Your task to perform on an android device: change keyboard looks Image 0: 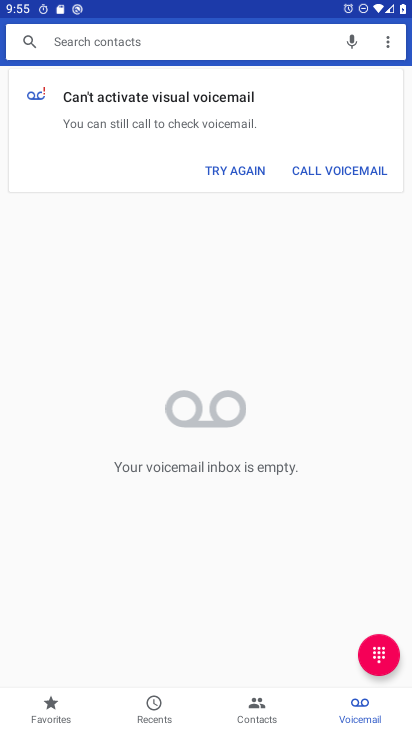
Step 0: press home button
Your task to perform on an android device: change keyboard looks Image 1: 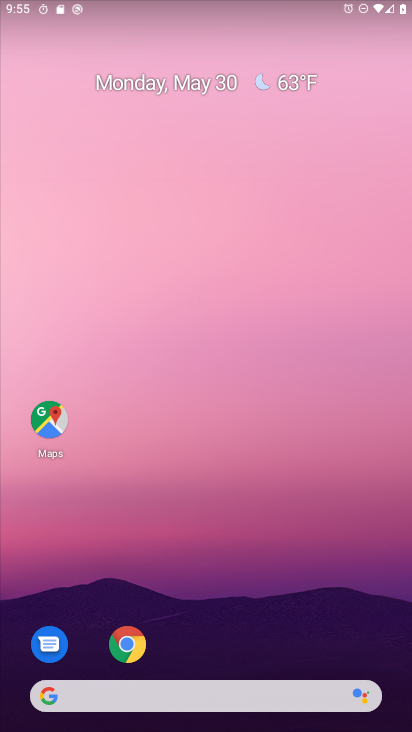
Step 1: drag from (218, 597) to (194, 56)
Your task to perform on an android device: change keyboard looks Image 2: 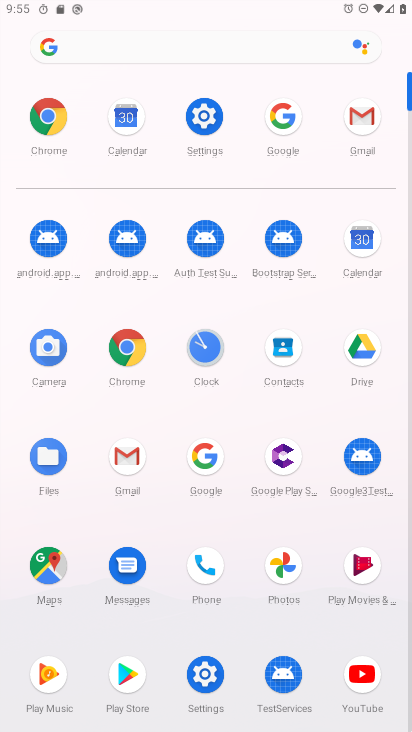
Step 2: click (211, 120)
Your task to perform on an android device: change keyboard looks Image 3: 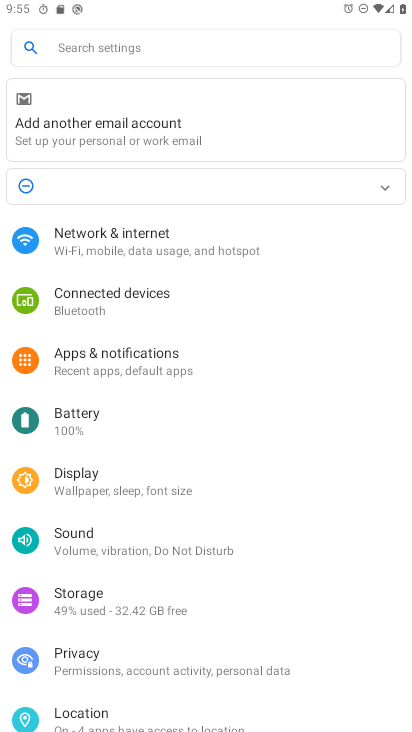
Step 3: drag from (216, 614) to (176, 135)
Your task to perform on an android device: change keyboard looks Image 4: 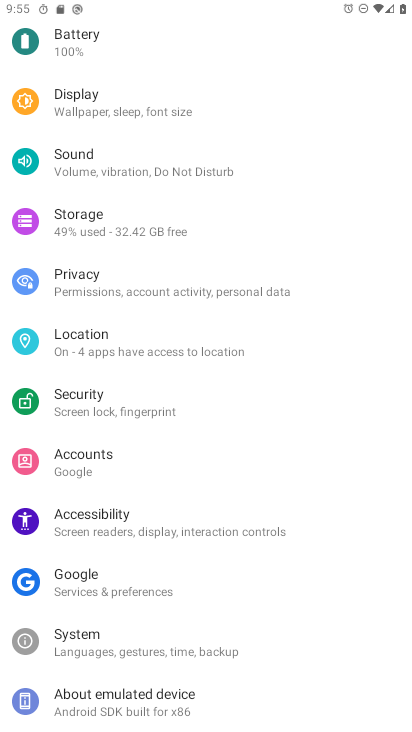
Step 4: click (67, 642)
Your task to perform on an android device: change keyboard looks Image 5: 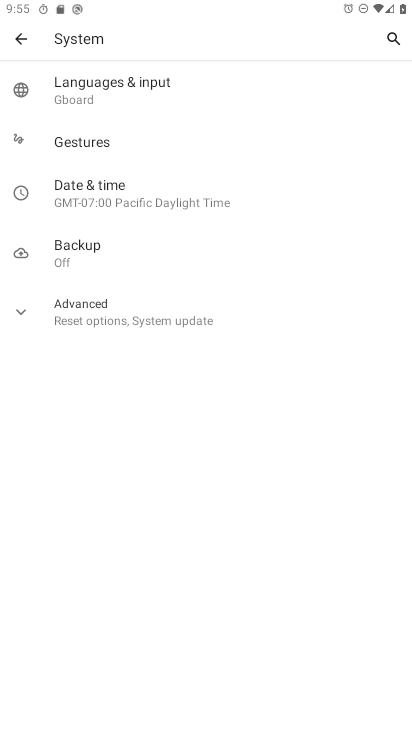
Step 5: click (119, 89)
Your task to perform on an android device: change keyboard looks Image 6: 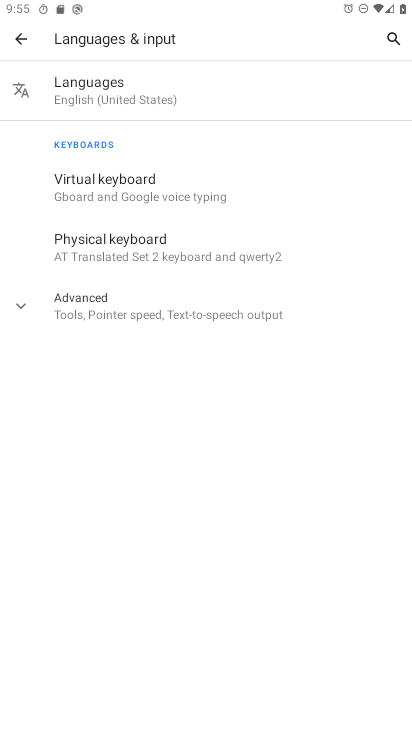
Step 6: click (101, 191)
Your task to perform on an android device: change keyboard looks Image 7: 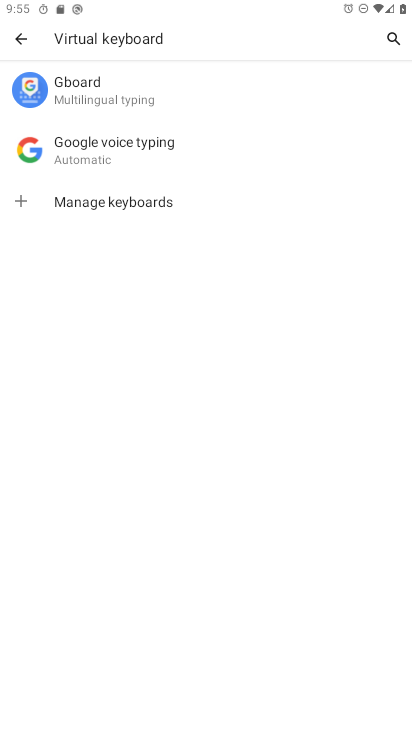
Step 7: click (117, 93)
Your task to perform on an android device: change keyboard looks Image 8: 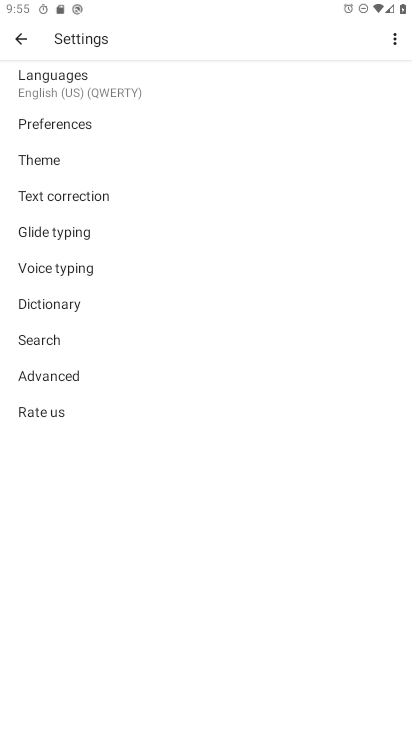
Step 8: click (60, 159)
Your task to perform on an android device: change keyboard looks Image 9: 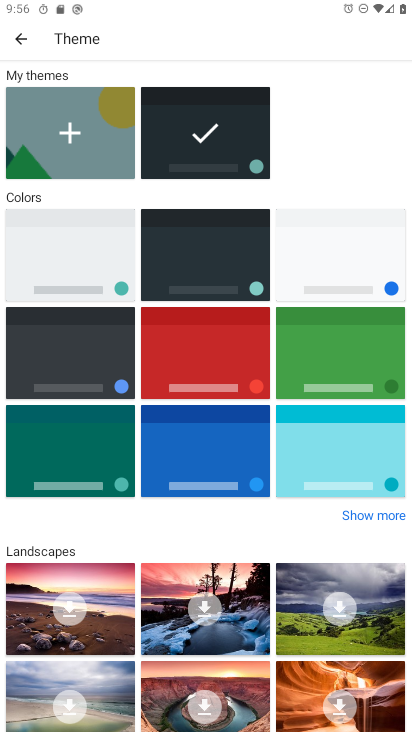
Step 9: click (222, 256)
Your task to perform on an android device: change keyboard looks Image 10: 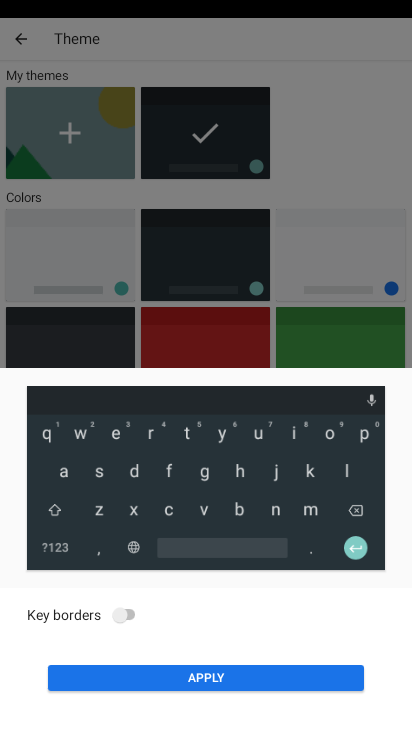
Step 10: click (206, 676)
Your task to perform on an android device: change keyboard looks Image 11: 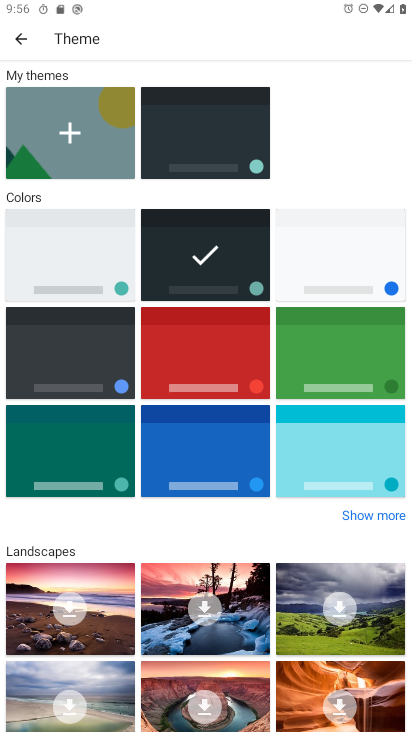
Step 11: task complete